Your task to perform on an android device: open wifi settings Image 0: 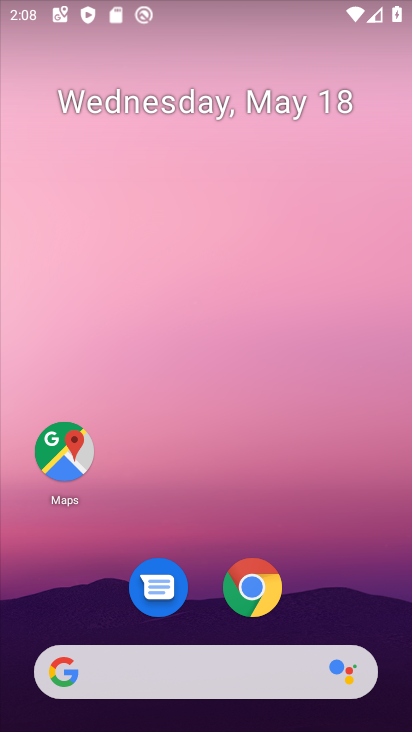
Step 0: drag from (371, 634) to (191, 15)
Your task to perform on an android device: open wifi settings Image 1: 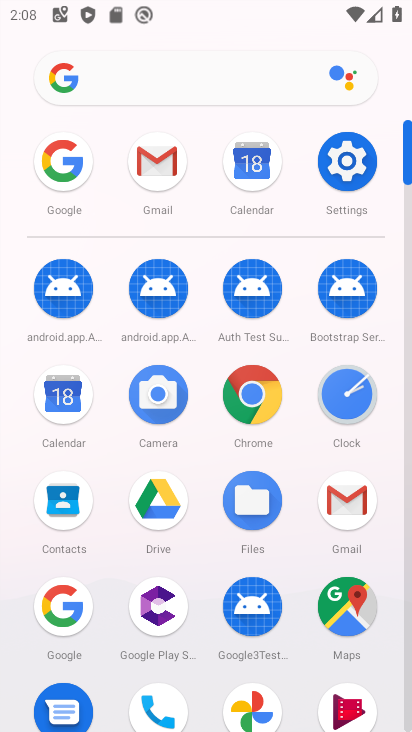
Step 1: click (339, 169)
Your task to perform on an android device: open wifi settings Image 2: 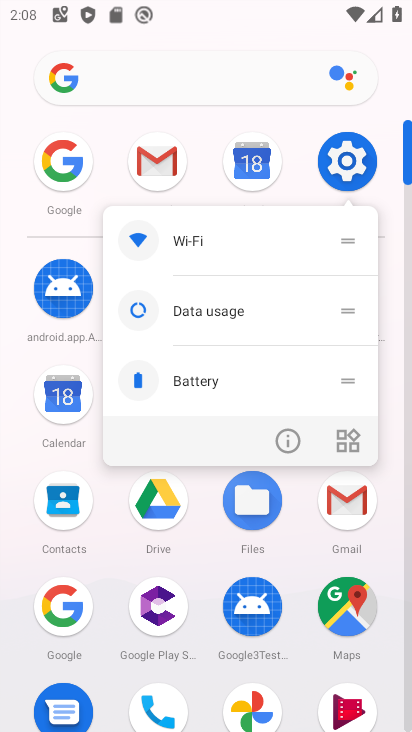
Step 2: click (189, 239)
Your task to perform on an android device: open wifi settings Image 3: 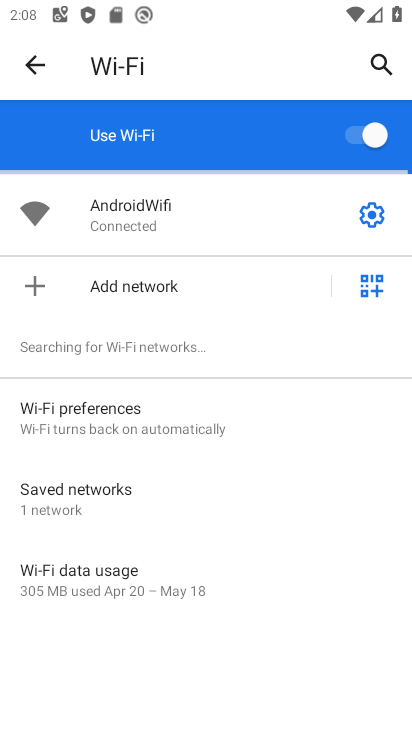
Step 3: task complete